Your task to perform on an android device: add a contact Image 0: 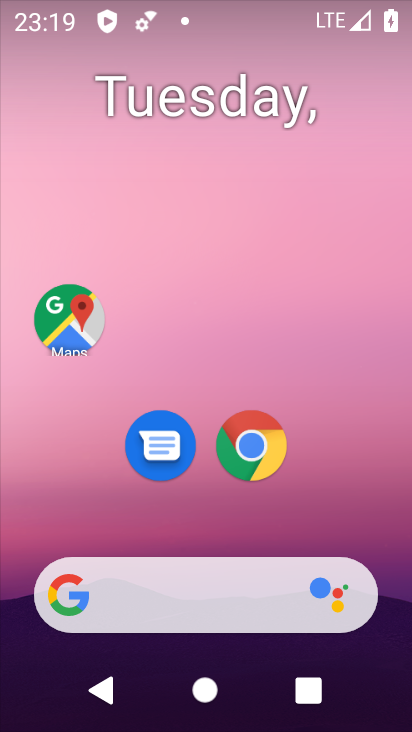
Step 0: drag from (302, 527) to (389, 4)
Your task to perform on an android device: add a contact Image 1: 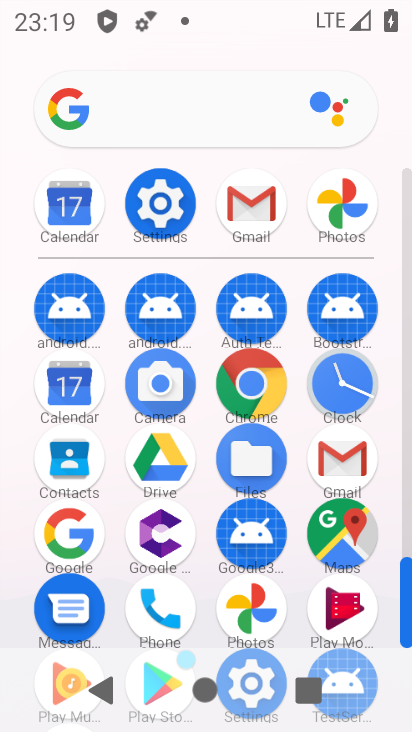
Step 1: click (66, 452)
Your task to perform on an android device: add a contact Image 2: 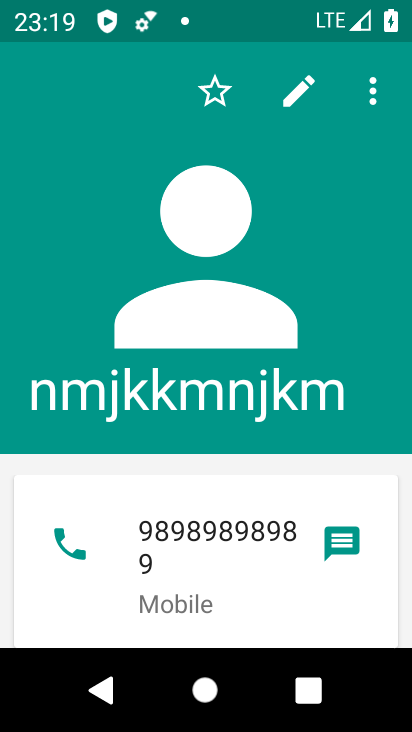
Step 2: press back button
Your task to perform on an android device: add a contact Image 3: 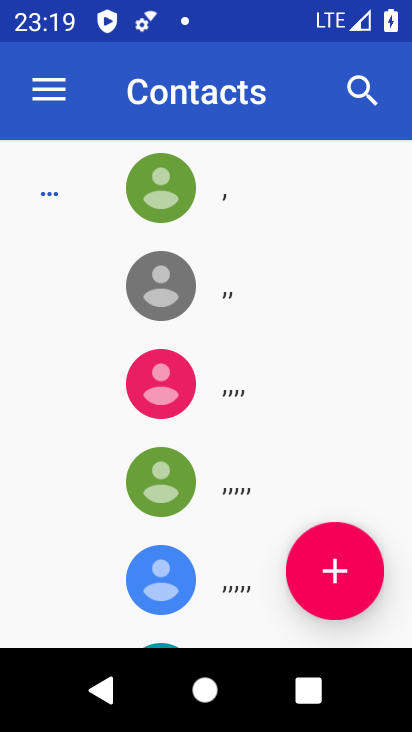
Step 3: click (313, 571)
Your task to perform on an android device: add a contact Image 4: 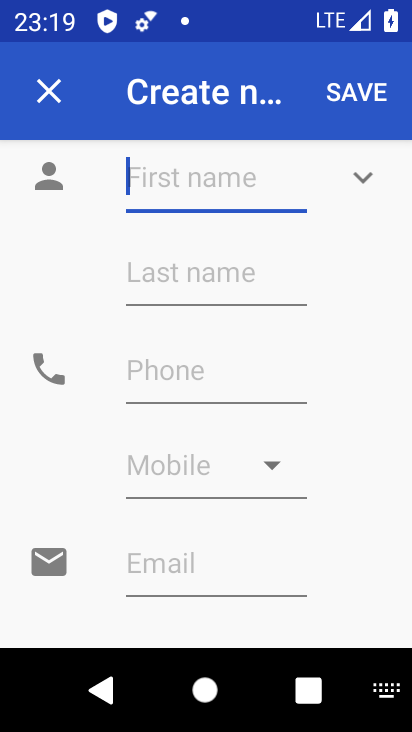
Step 4: type "qwertyuiop"
Your task to perform on an android device: add a contact Image 5: 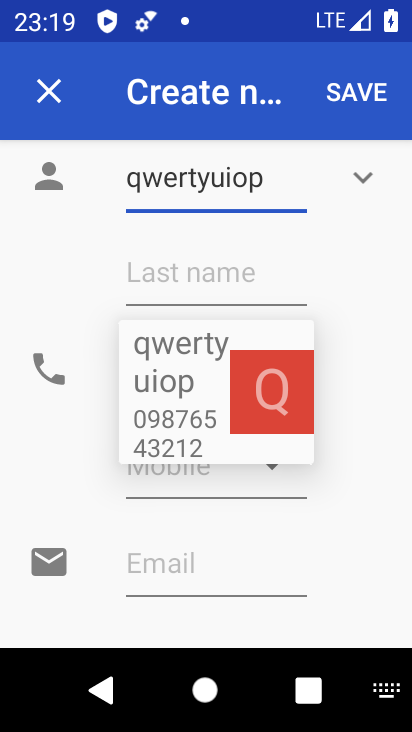
Step 5: click (86, 384)
Your task to perform on an android device: add a contact Image 6: 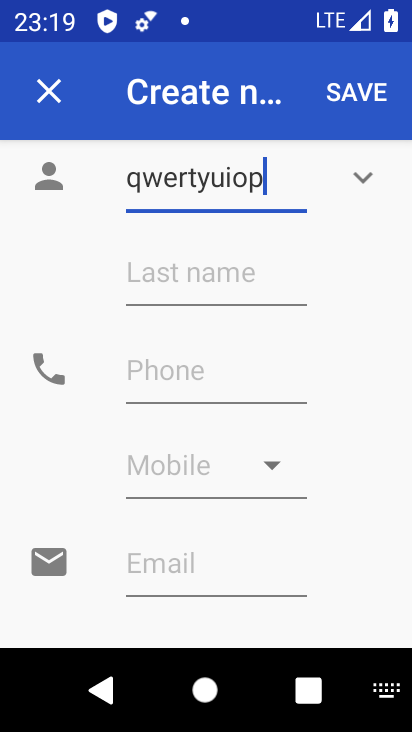
Step 6: click (169, 375)
Your task to perform on an android device: add a contact Image 7: 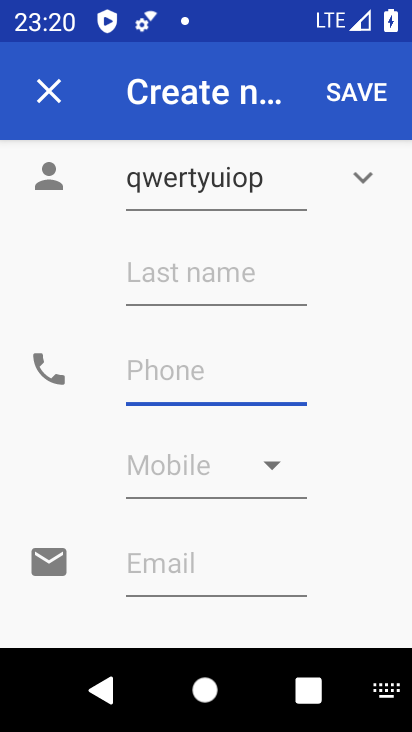
Step 7: type "121345667788"
Your task to perform on an android device: add a contact Image 8: 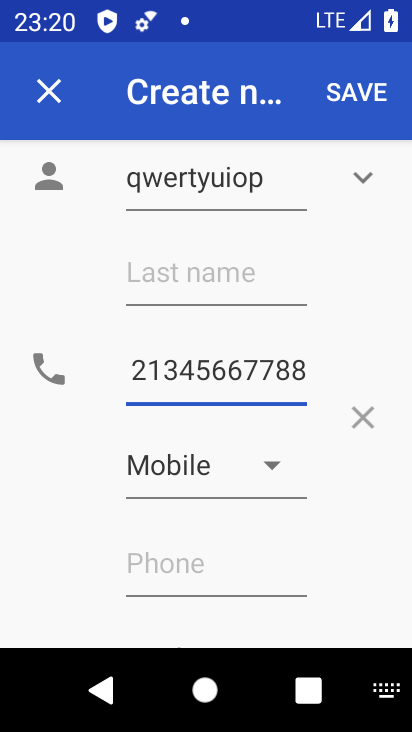
Step 8: click (364, 106)
Your task to perform on an android device: add a contact Image 9: 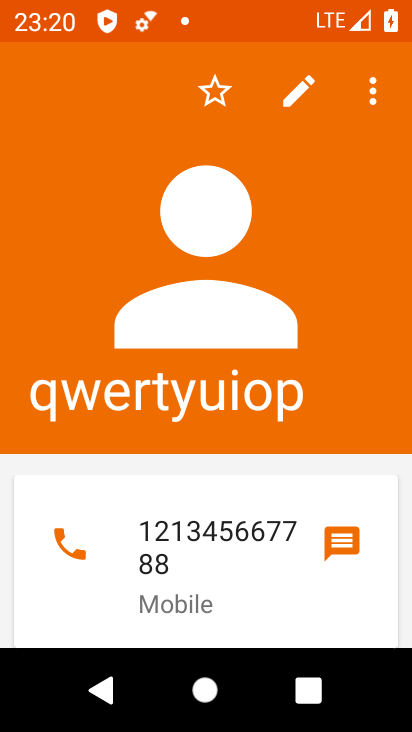
Step 9: task complete